Your task to perform on an android device: check out phone information Image 0: 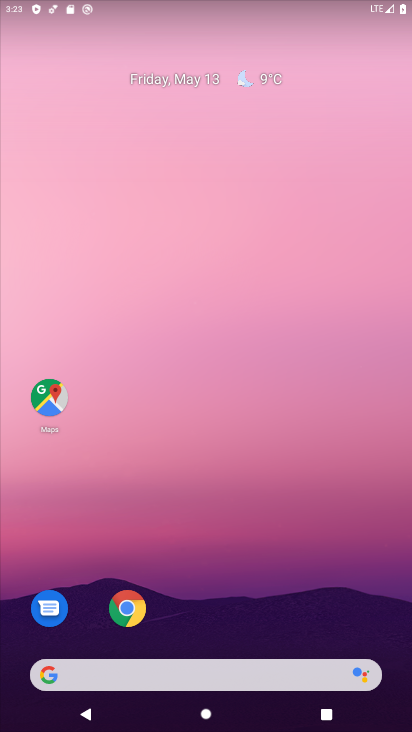
Step 0: drag from (193, 626) to (289, 124)
Your task to perform on an android device: check out phone information Image 1: 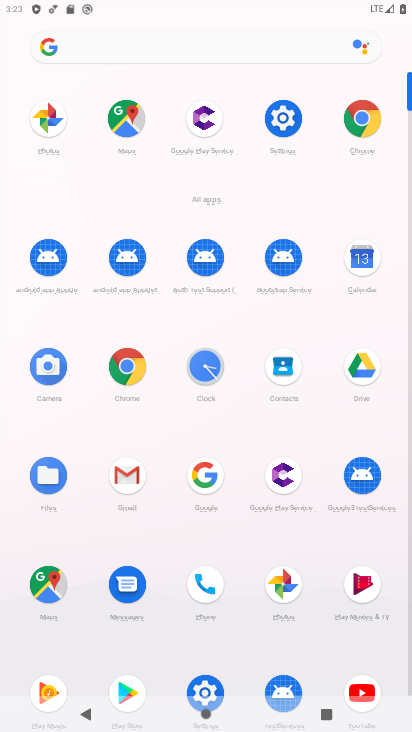
Step 1: drag from (218, 540) to (263, 363)
Your task to perform on an android device: check out phone information Image 2: 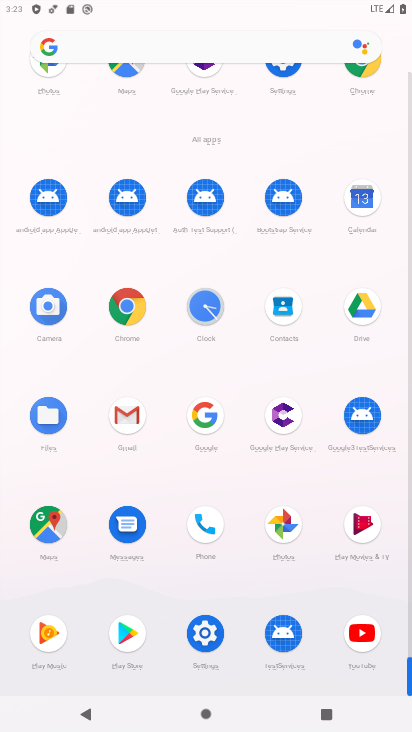
Step 2: click (210, 640)
Your task to perform on an android device: check out phone information Image 3: 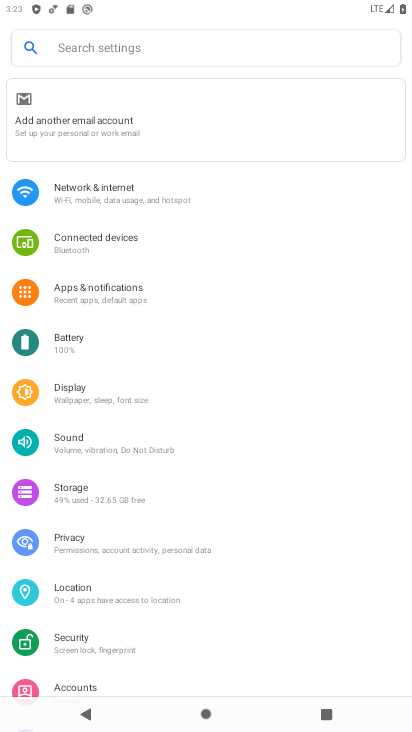
Step 3: drag from (209, 639) to (342, 97)
Your task to perform on an android device: check out phone information Image 4: 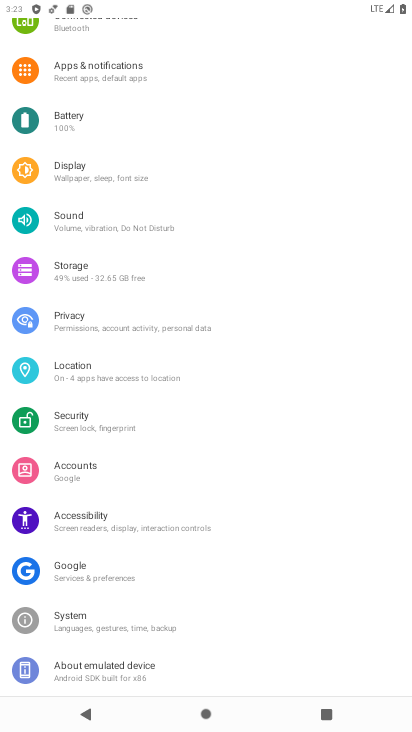
Step 4: click (156, 671)
Your task to perform on an android device: check out phone information Image 5: 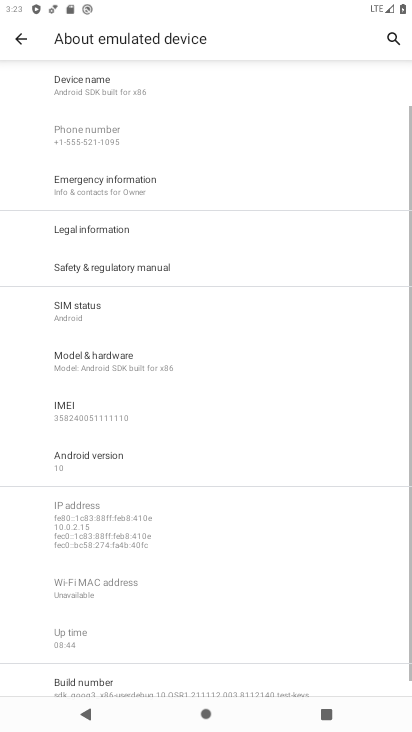
Step 5: task complete